Your task to perform on an android device: toggle priority inbox in the gmail app Image 0: 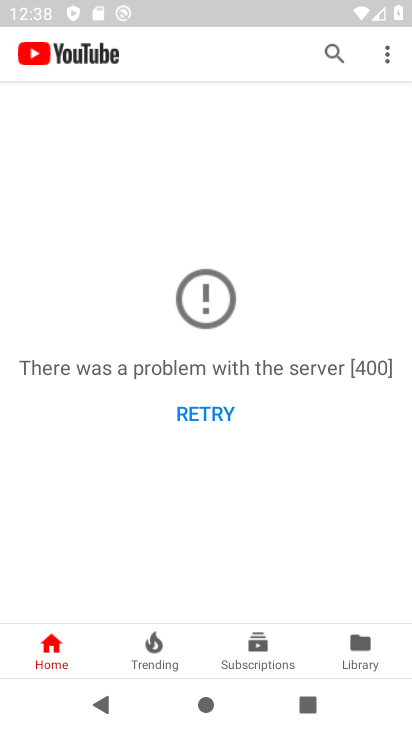
Step 0: press home button
Your task to perform on an android device: toggle priority inbox in the gmail app Image 1: 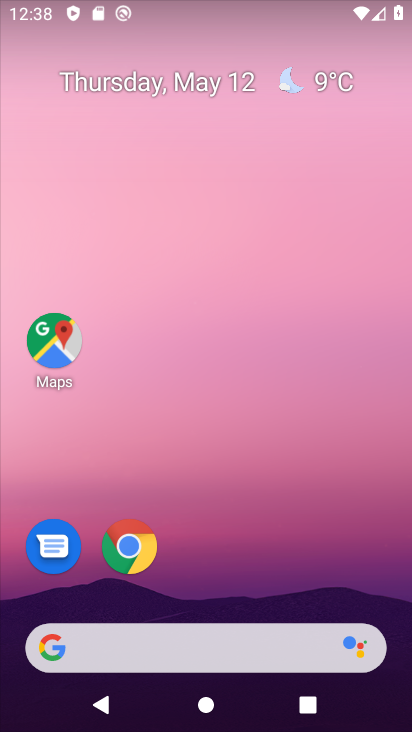
Step 1: drag from (246, 679) to (317, 260)
Your task to perform on an android device: toggle priority inbox in the gmail app Image 2: 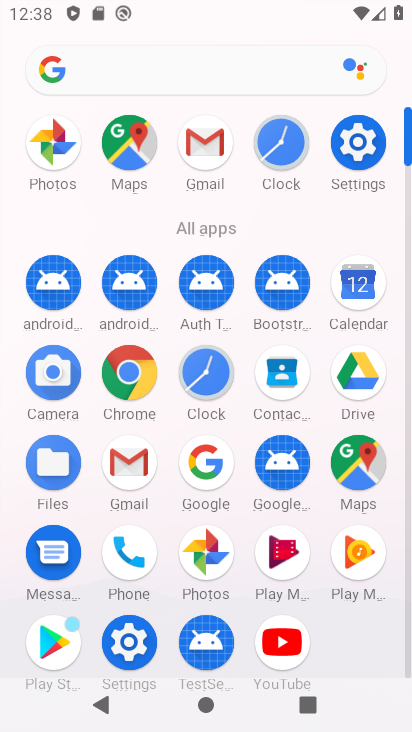
Step 2: click (229, 130)
Your task to perform on an android device: toggle priority inbox in the gmail app Image 3: 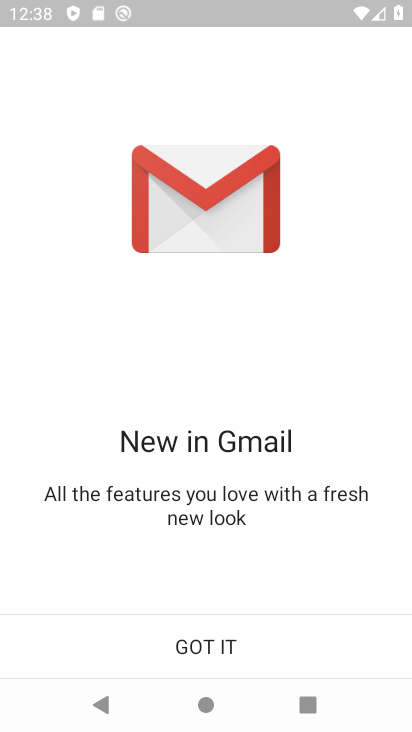
Step 3: click (213, 632)
Your task to perform on an android device: toggle priority inbox in the gmail app Image 4: 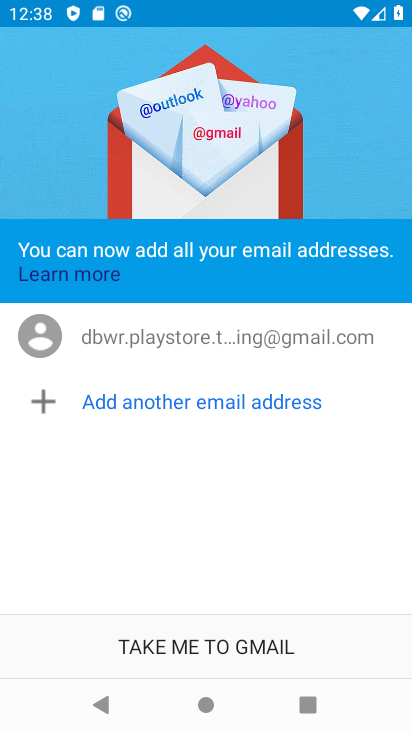
Step 4: click (207, 632)
Your task to perform on an android device: toggle priority inbox in the gmail app Image 5: 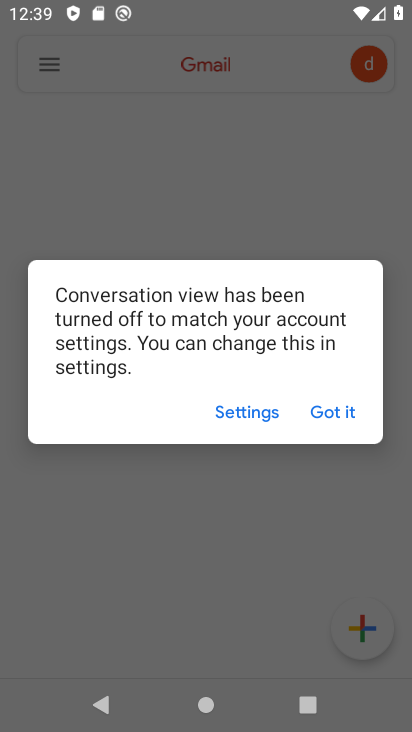
Step 5: click (303, 421)
Your task to perform on an android device: toggle priority inbox in the gmail app Image 6: 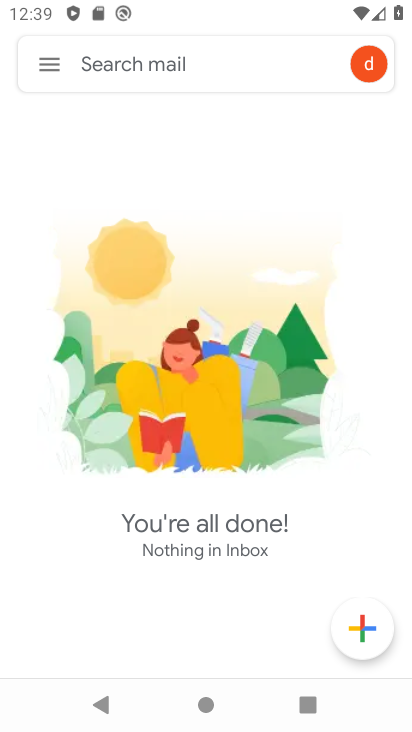
Step 6: click (51, 80)
Your task to perform on an android device: toggle priority inbox in the gmail app Image 7: 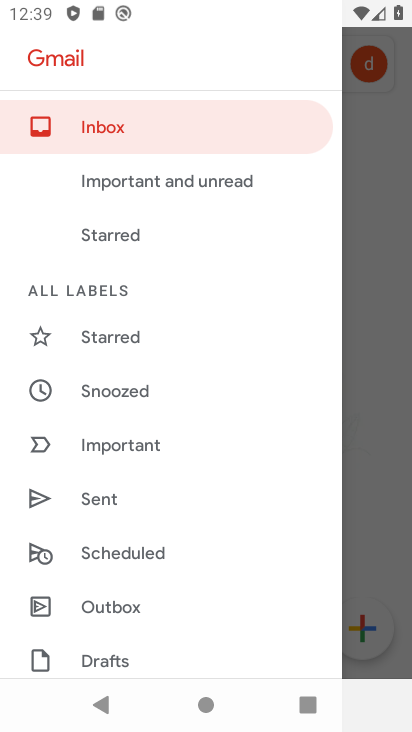
Step 7: drag from (101, 630) to (223, 383)
Your task to perform on an android device: toggle priority inbox in the gmail app Image 8: 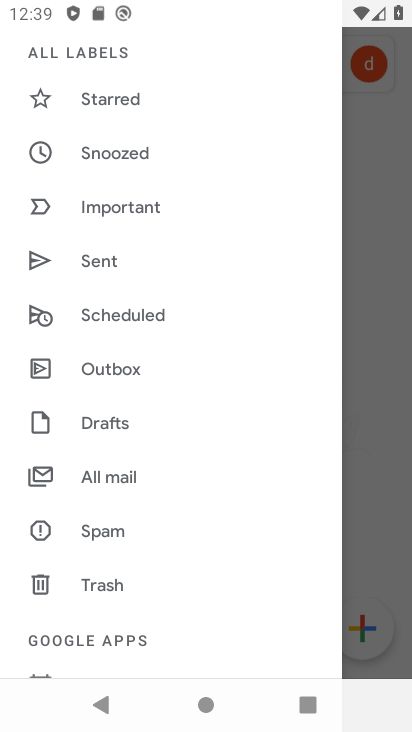
Step 8: drag from (113, 626) to (189, 375)
Your task to perform on an android device: toggle priority inbox in the gmail app Image 9: 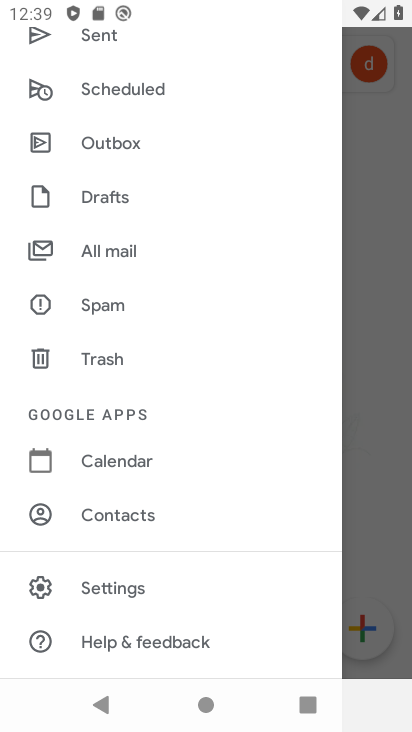
Step 9: click (117, 582)
Your task to perform on an android device: toggle priority inbox in the gmail app Image 10: 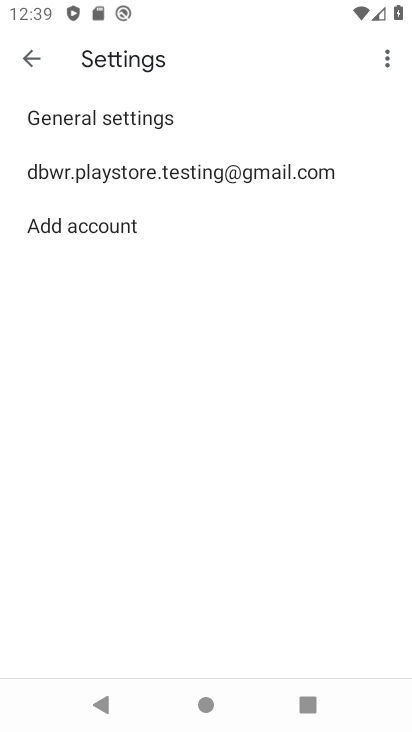
Step 10: click (146, 182)
Your task to perform on an android device: toggle priority inbox in the gmail app Image 11: 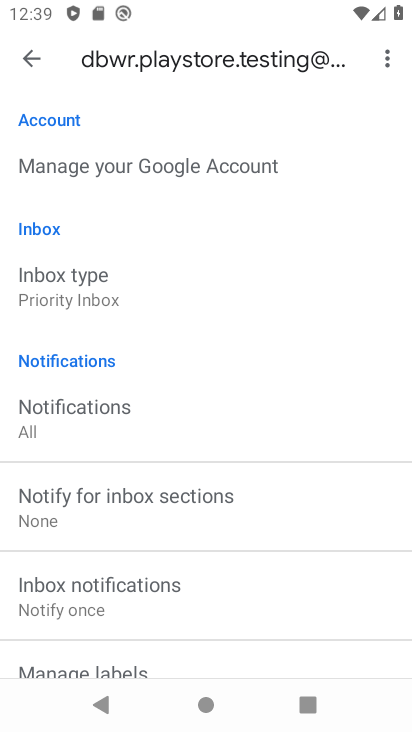
Step 11: click (118, 284)
Your task to perform on an android device: toggle priority inbox in the gmail app Image 12: 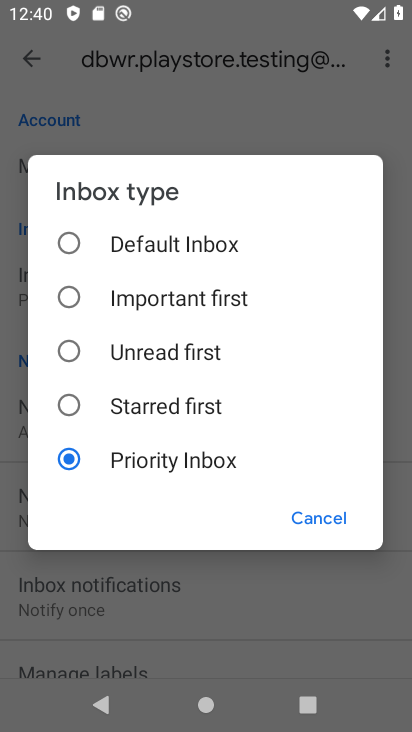
Step 12: task complete